Your task to perform on an android device: Search for seafood restaurants on Google Maps Image 0: 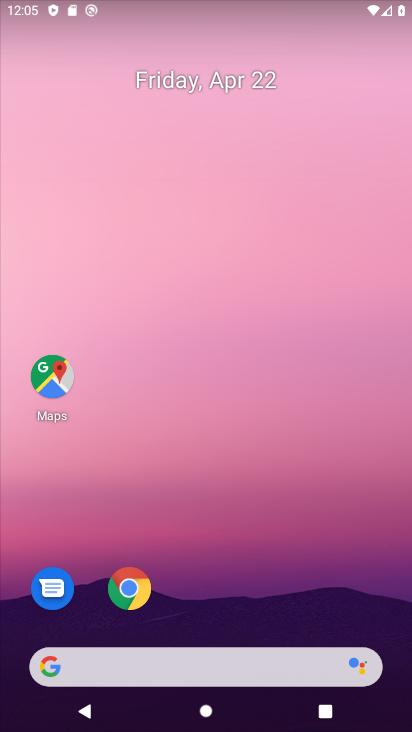
Step 0: drag from (335, 572) to (340, 36)
Your task to perform on an android device: Search for seafood restaurants on Google Maps Image 1: 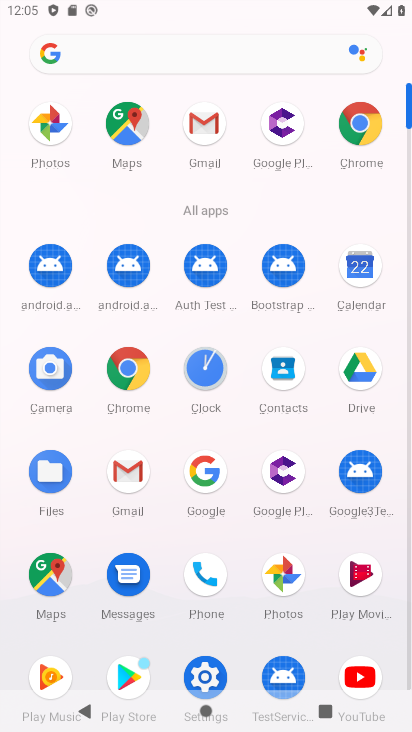
Step 1: drag from (328, 239) to (359, 15)
Your task to perform on an android device: Search for seafood restaurants on Google Maps Image 2: 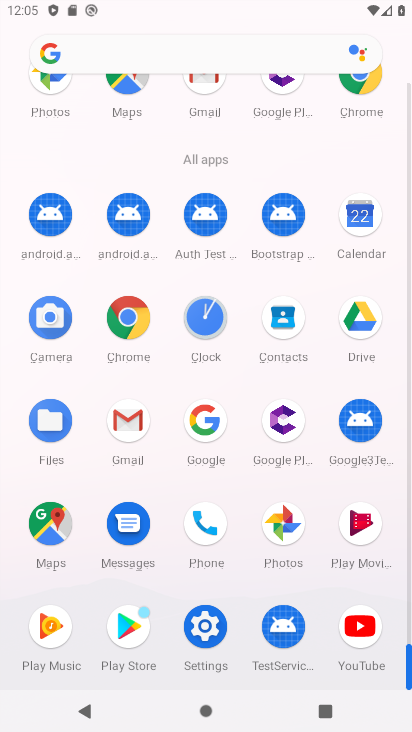
Step 2: click (49, 516)
Your task to perform on an android device: Search for seafood restaurants on Google Maps Image 3: 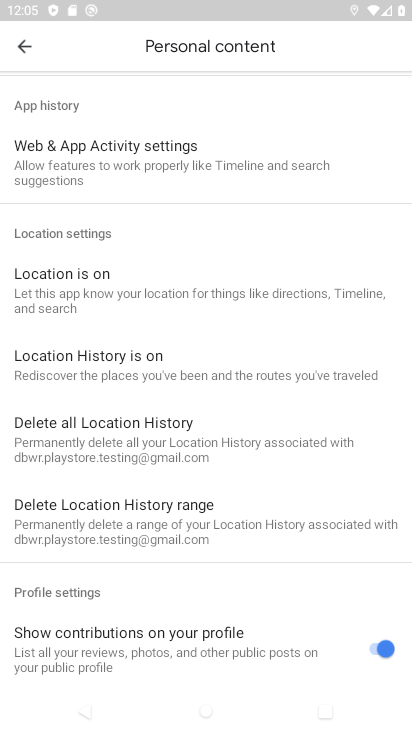
Step 3: click (22, 47)
Your task to perform on an android device: Search for seafood restaurants on Google Maps Image 4: 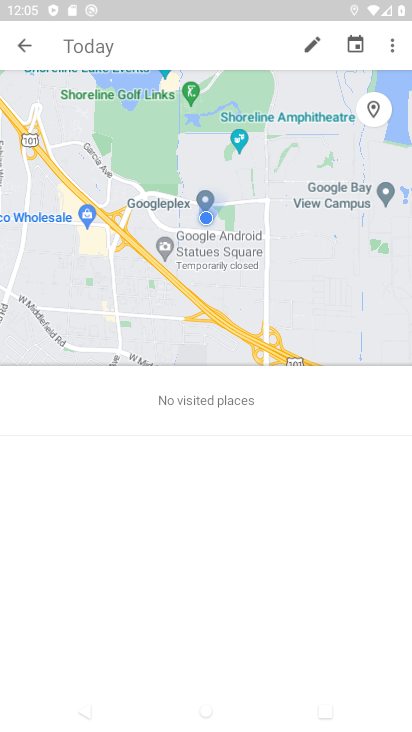
Step 4: click (20, 33)
Your task to perform on an android device: Search for seafood restaurants on Google Maps Image 5: 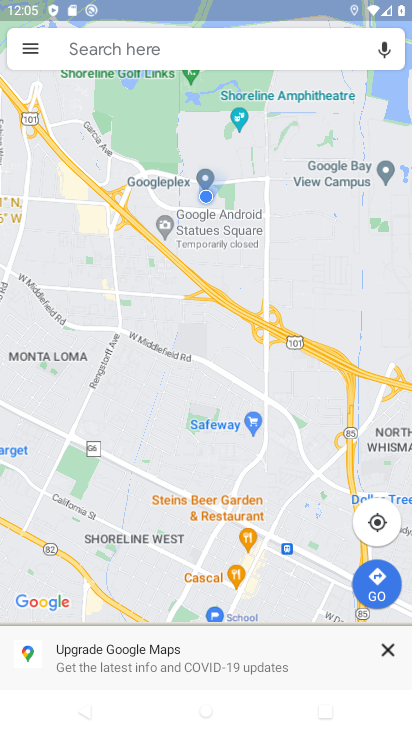
Step 5: click (111, 49)
Your task to perform on an android device: Search for seafood restaurants on Google Maps Image 6: 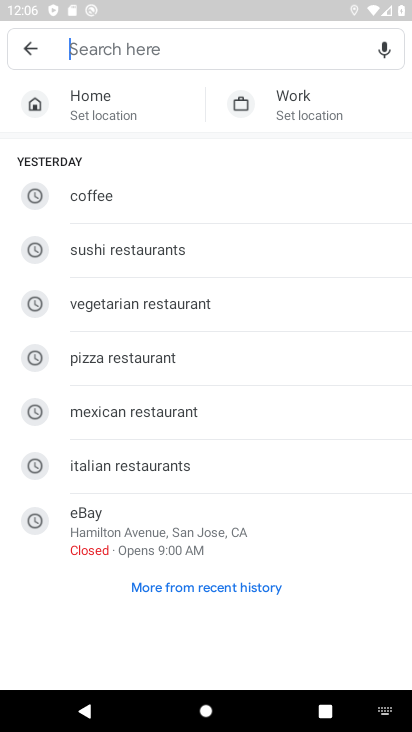
Step 6: type " seafood restaurants"
Your task to perform on an android device: Search for seafood restaurants on Google Maps Image 7: 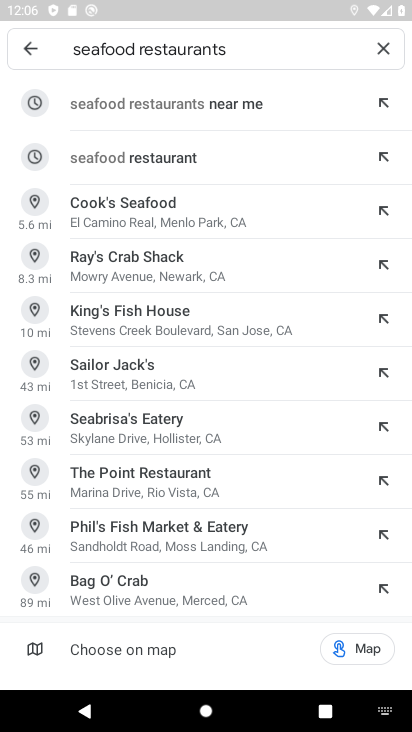
Step 7: click (228, 103)
Your task to perform on an android device: Search for seafood restaurants on Google Maps Image 8: 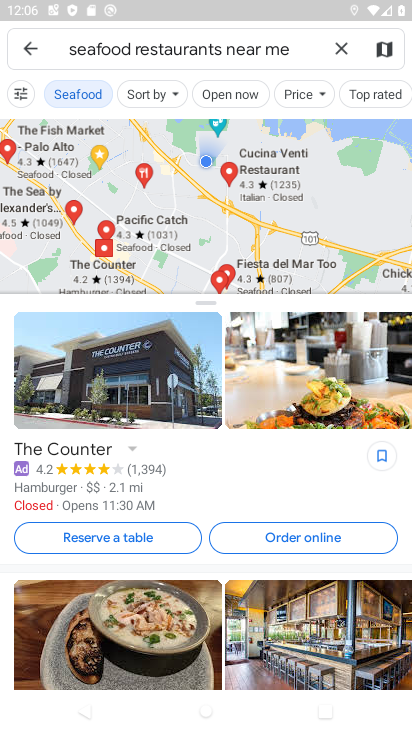
Step 8: task complete